Your task to perform on an android device: turn off priority inbox in the gmail app Image 0: 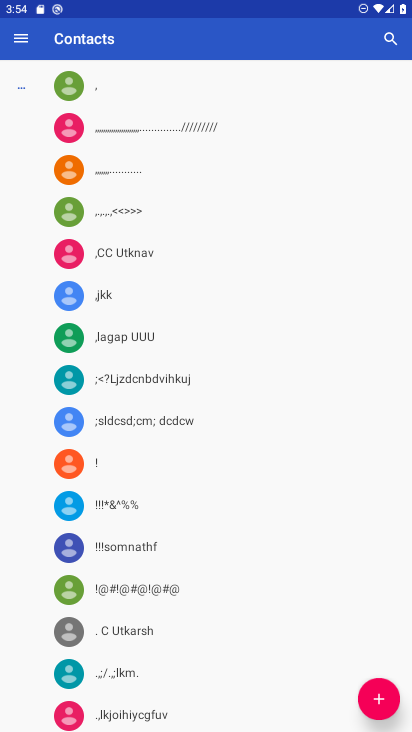
Step 0: press home button
Your task to perform on an android device: turn off priority inbox in the gmail app Image 1: 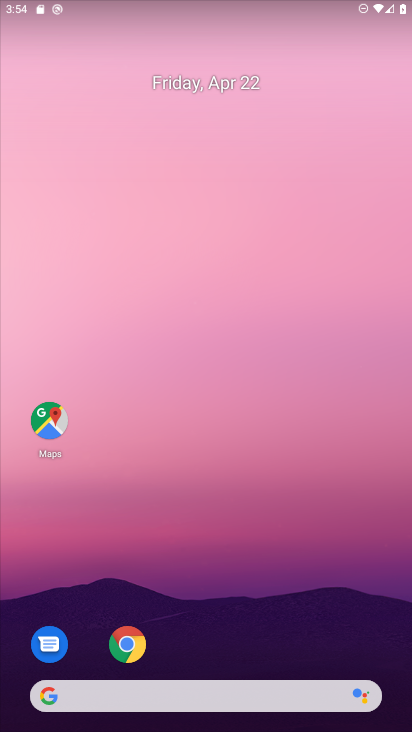
Step 1: drag from (272, 567) to (277, 68)
Your task to perform on an android device: turn off priority inbox in the gmail app Image 2: 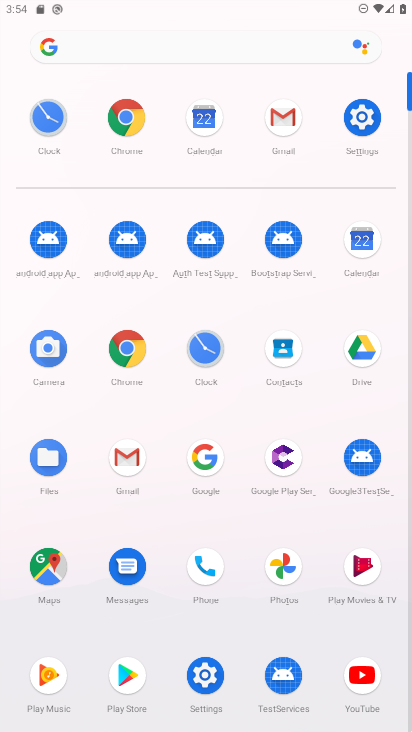
Step 2: click (122, 454)
Your task to perform on an android device: turn off priority inbox in the gmail app Image 3: 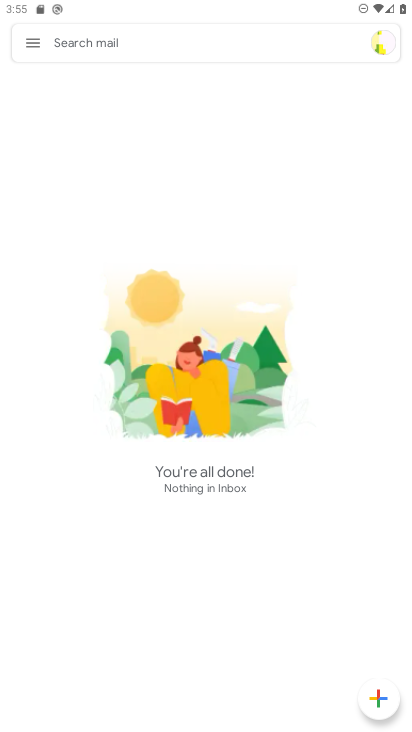
Step 3: click (25, 41)
Your task to perform on an android device: turn off priority inbox in the gmail app Image 4: 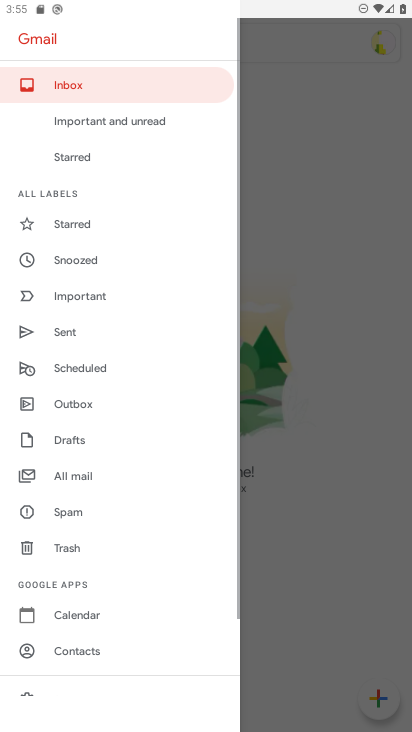
Step 4: drag from (147, 470) to (207, 152)
Your task to perform on an android device: turn off priority inbox in the gmail app Image 5: 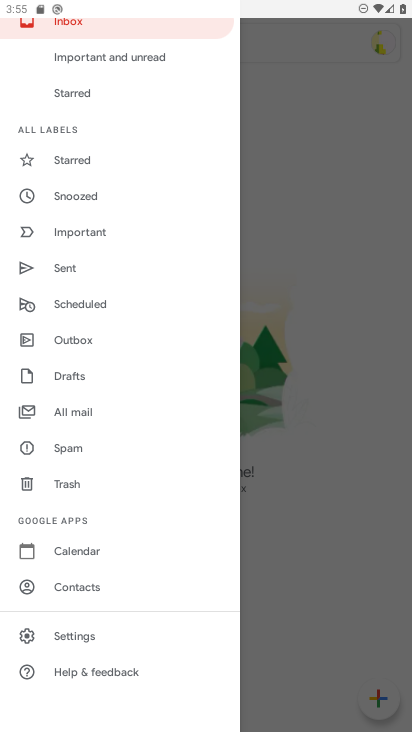
Step 5: click (70, 585)
Your task to perform on an android device: turn off priority inbox in the gmail app Image 6: 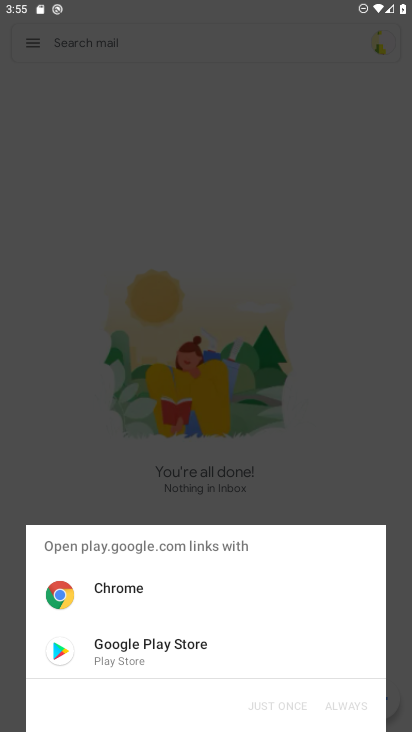
Step 6: click (203, 383)
Your task to perform on an android device: turn off priority inbox in the gmail app Image 7: 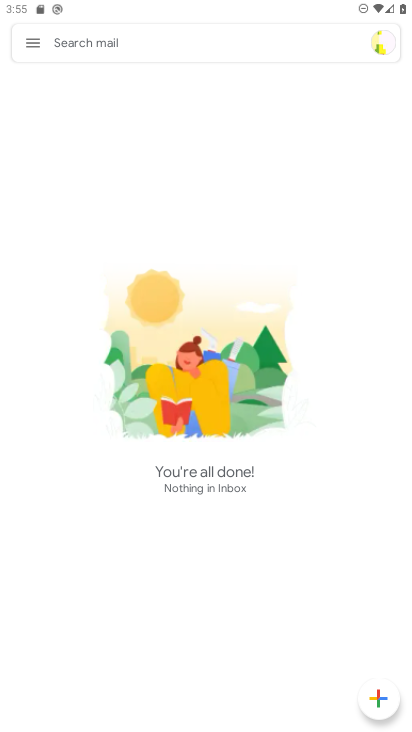
Step 7: click (31, 33)
Your task to perform on an android device: turn off priority inbox in the gmail app Image 8: 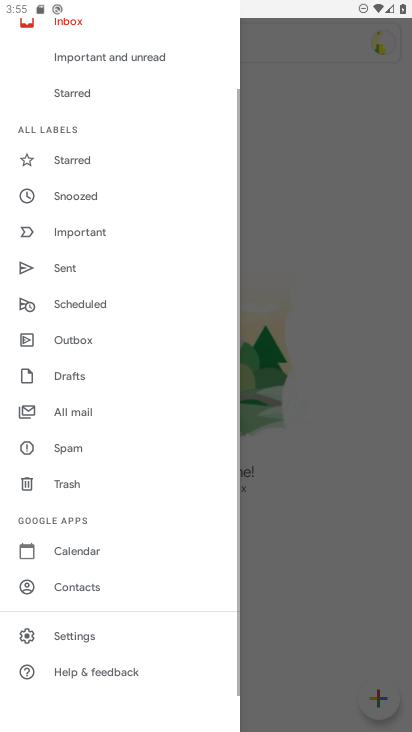
Step 8: click (95, 643)
Your task to perform on an android device: turn off priority inbox in the gmail app Image 9: 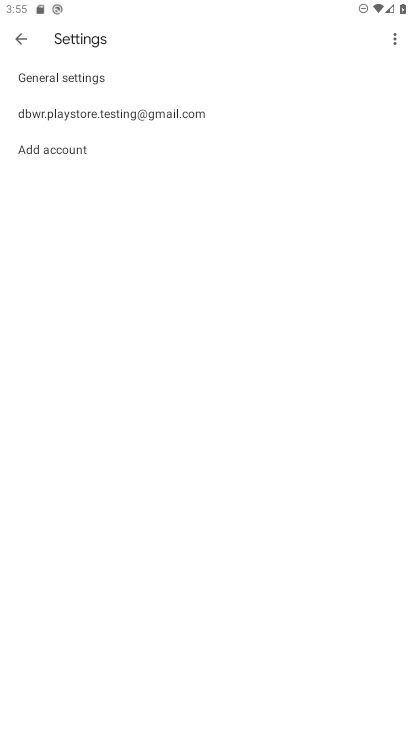
Step 9: click (88, 112)
Your task to perform on an android device: turn off priority inbox in the gmail app Image 10: 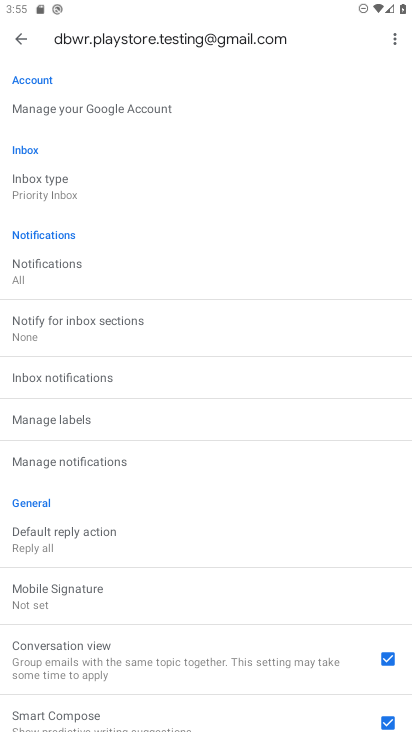
Step 10: click (53, 180)
Your task to perform on an android device: turn off priority inbox in the gmail app Image 11: 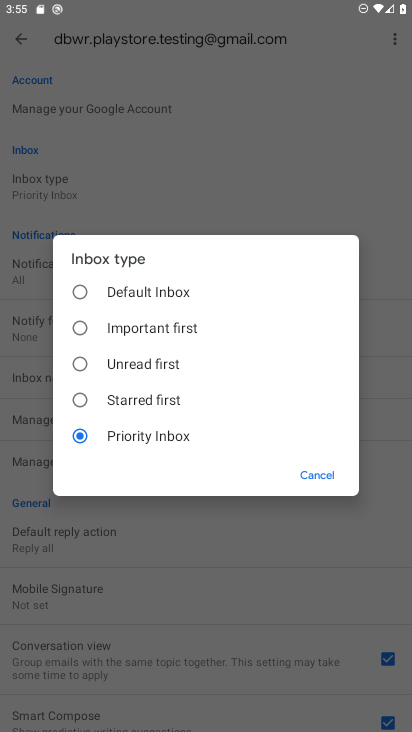
Step 11: task complete